Your task to perform on an android device: Go to sound settings Image 0: 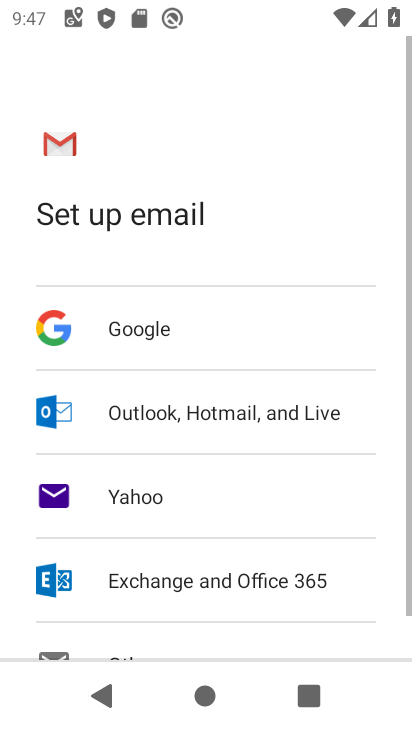
Step 0: press home button
Your task to perform on an android device: Go to sound settings Image 1: 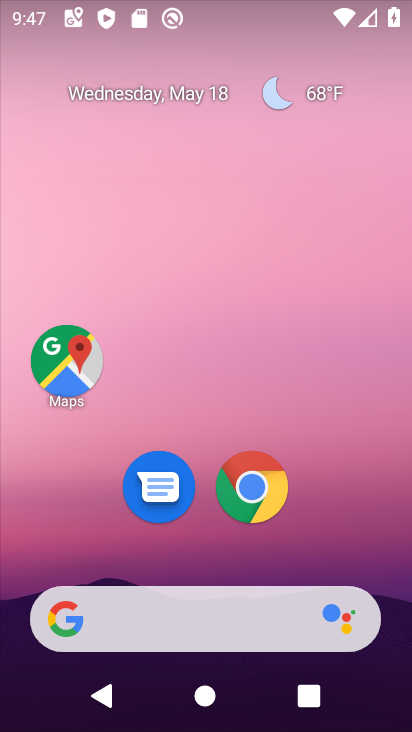
Step 1: drag from (282, 532) to (284, 169)
Your task to perform on an android device: Go to sound settings Image 2: 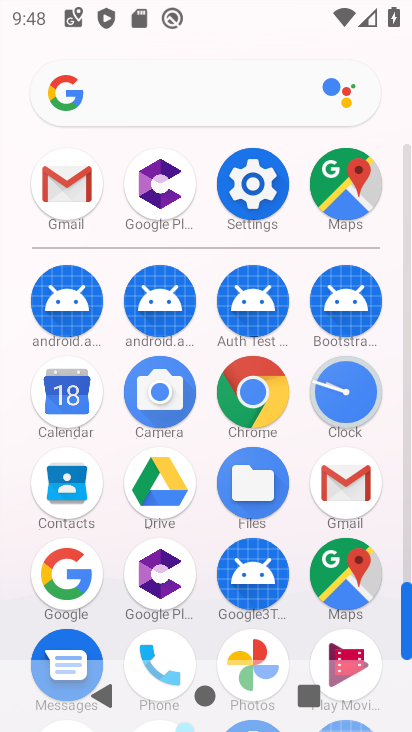
Step 2: click (270, 188)
Your task to perform on an android device: Go to sound settings Image 3: 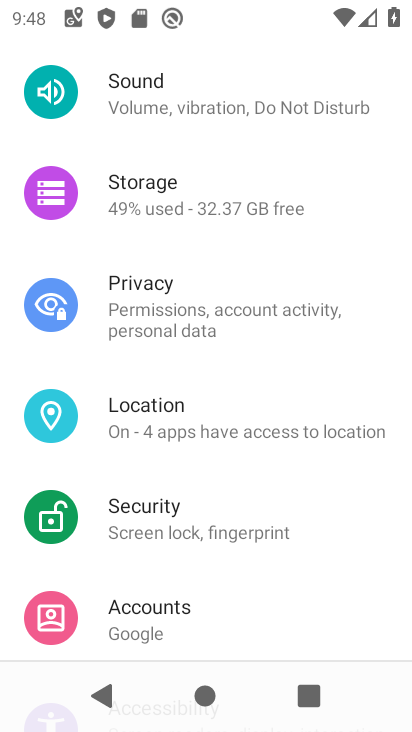
Step 3: drag from (270, 526) to (287, 298)
Your task to perform on an android device: Go to sound settings Image 4: 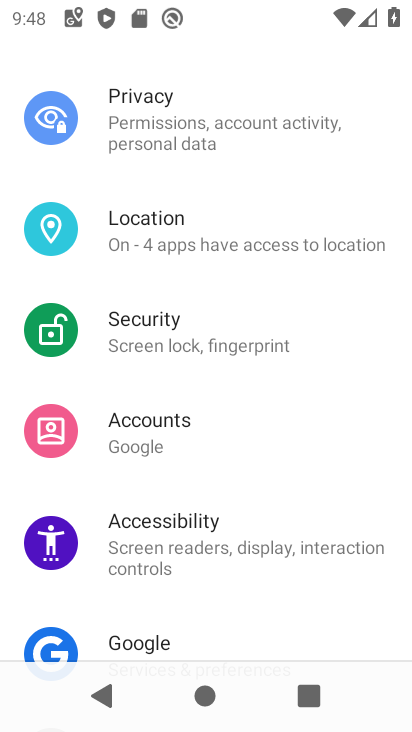
Step 4: drag from (291, 151) to (279, 518)
Your task to perform on an android device: Go to sound settings Image 5: 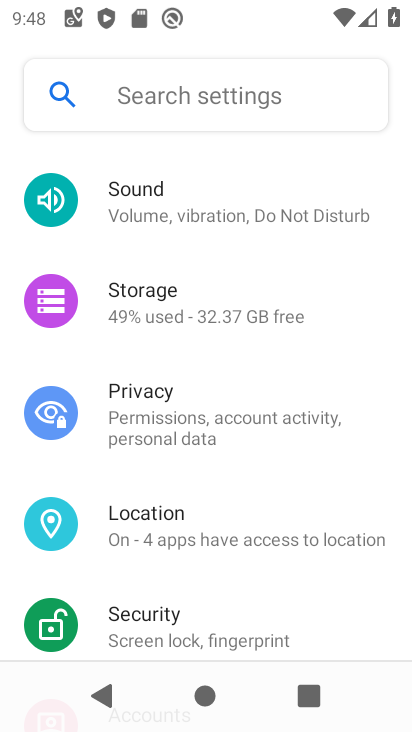
Step 5: click (177, 205)
Your task to perform on an android device: Go to sound settings Image 6: 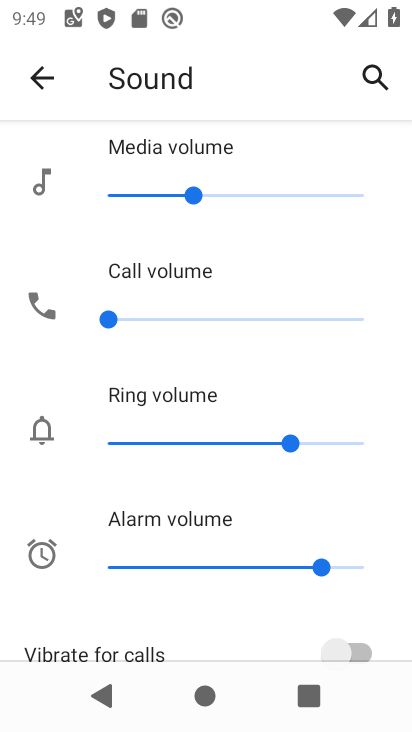
Step 6: task complete